Your task to perform on an android device: Open Google Image 0: 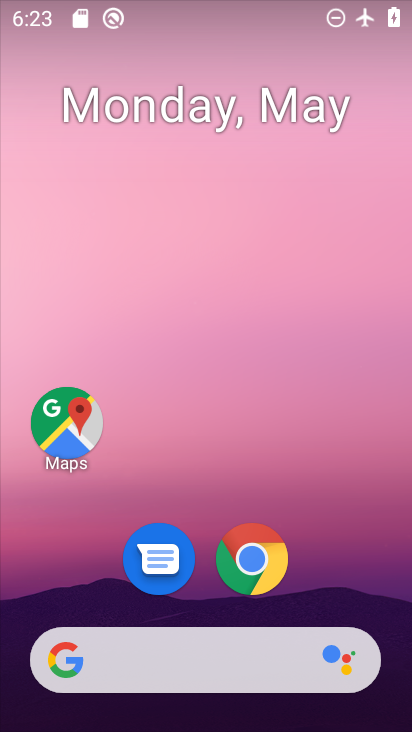
Step 0: click (152, 651)
Your task to perform on an android device: Open Google Image 1: 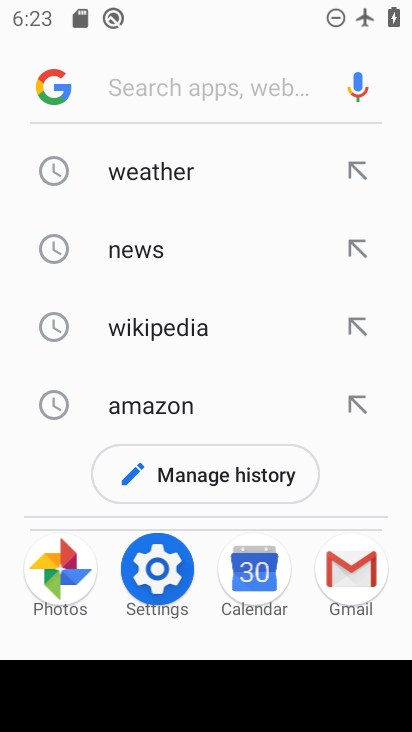
Step 1: click (54, 91)
Your task to perform on an android device: Open Google Image 2: 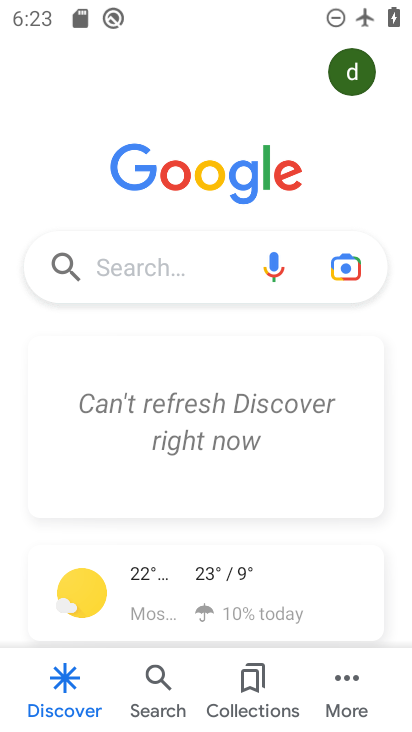
Step 2: task complete